Your task to perform on an android device: Go to Reddit.com Image 0: 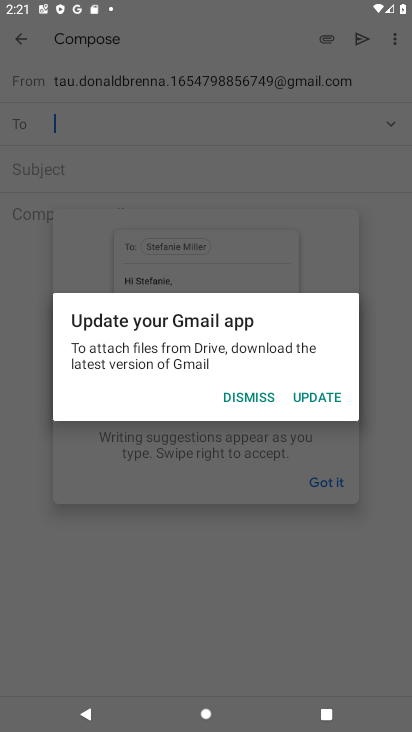
Step 0: click (245, 391)
Your task to perform on an android device: Go to Reddit.com Image 1: 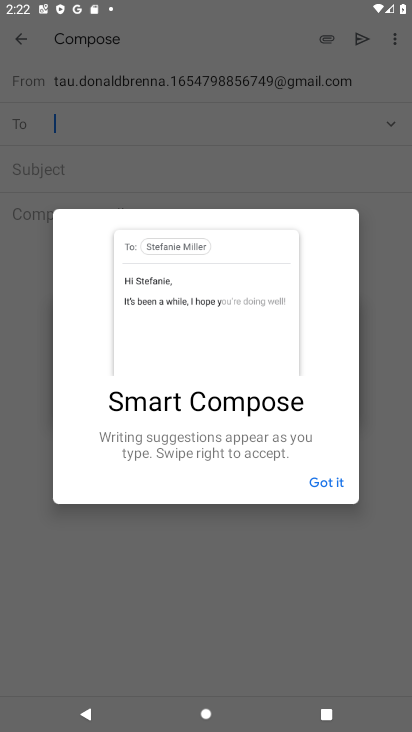
Step 1: click (324, 472)
Your task to perform on an android device: Go to Reddit.com Image 2: 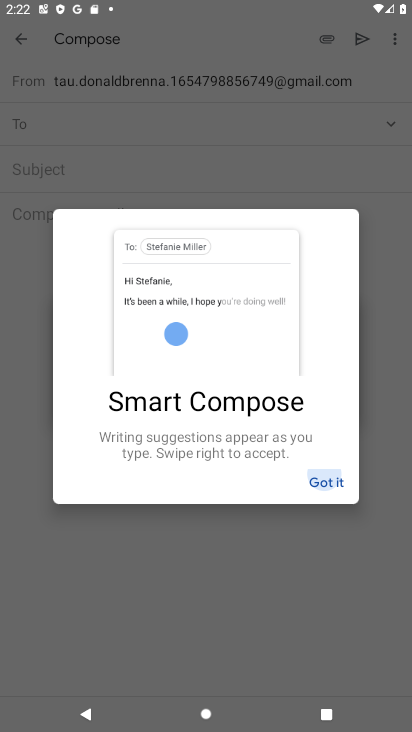
Step 2: click (325, 471)
Your task to perform on an android device: Go to Reddit.com Image 3: 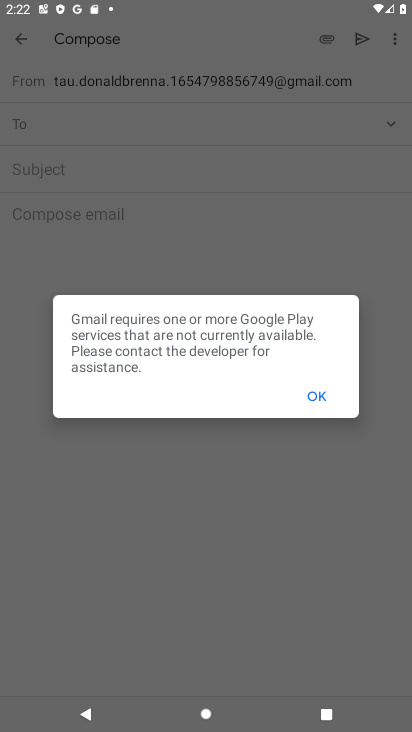
Step 3: click (325, 471)
Your task to perform on an android device: Go to Reddit.com Image 4: 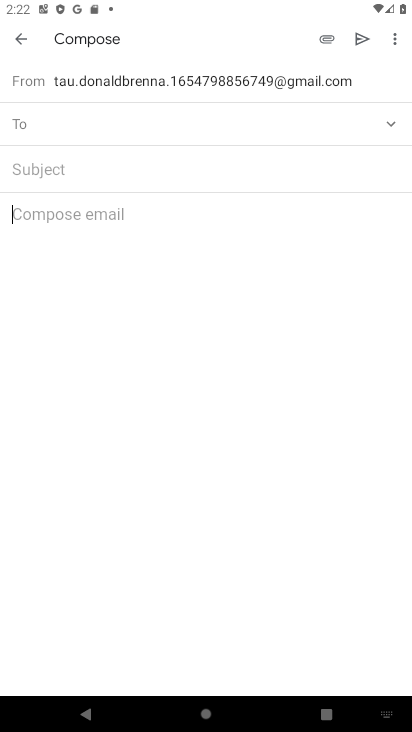
Step 4: click (16, 30)
Your task to perform on an android device: Go to Reddit.com Image 5: 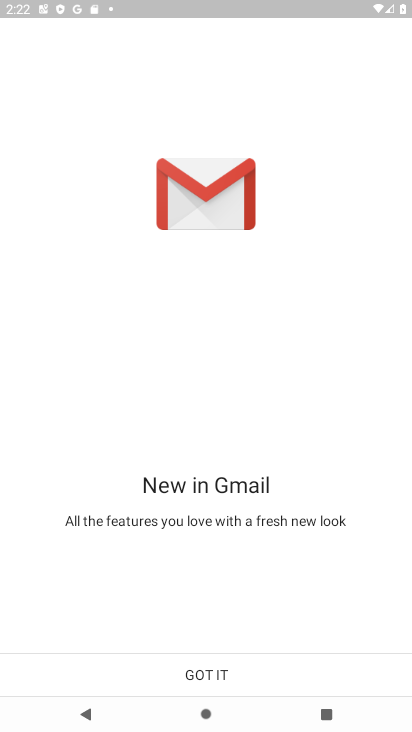
Step 5: click (247, 658)
Your task to perform on an android device: Go to Reddit.com Image 6: 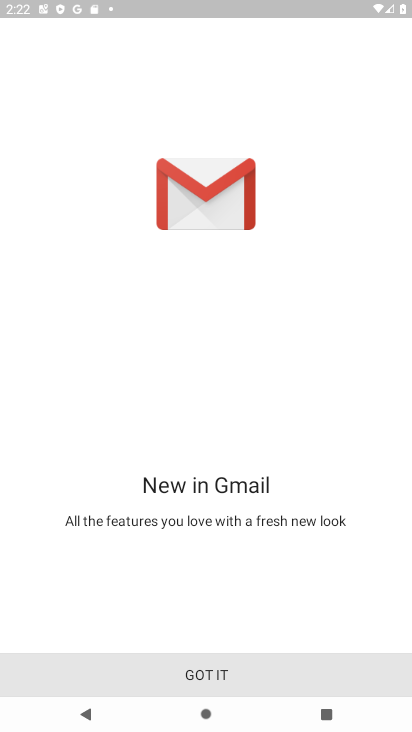
Step 6: click (225, 677)
Your task to perform on an android device: Go to Reddit.com Image 7: 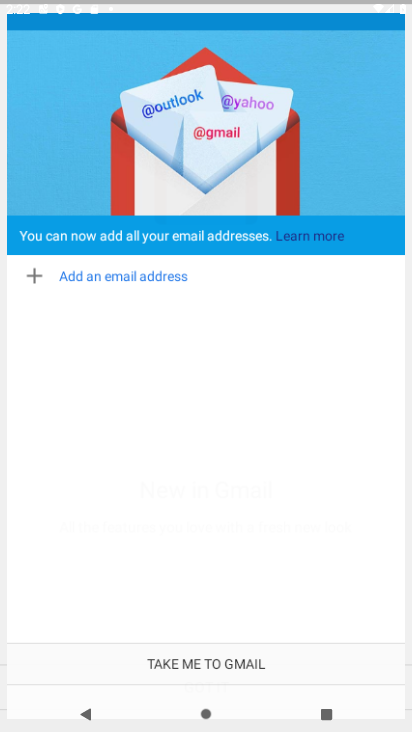
Step 7: click (225, 677)
Your task to perform on an android device: Go to Reddit.com Image 8: 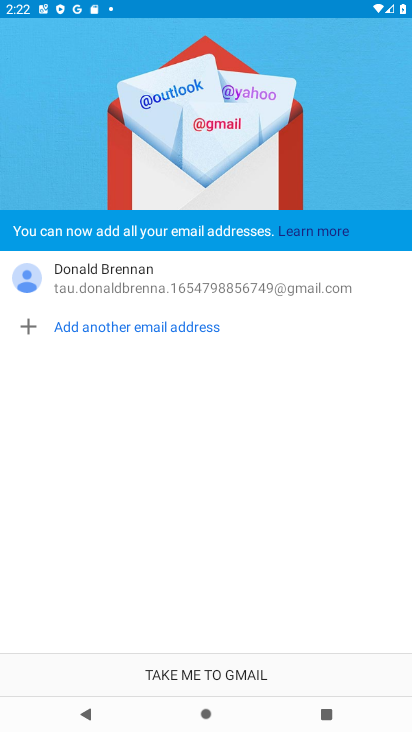
Step 8: click (225, 660)
Your task to perform on an android device: Go to Reddit.com Image 9: 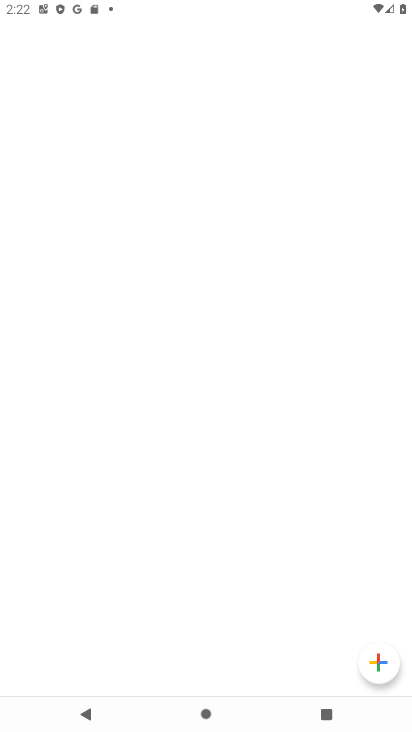
Step 9: click (220, 686)
Your task to perform on an android device: Go to Reddit.com Image 10: 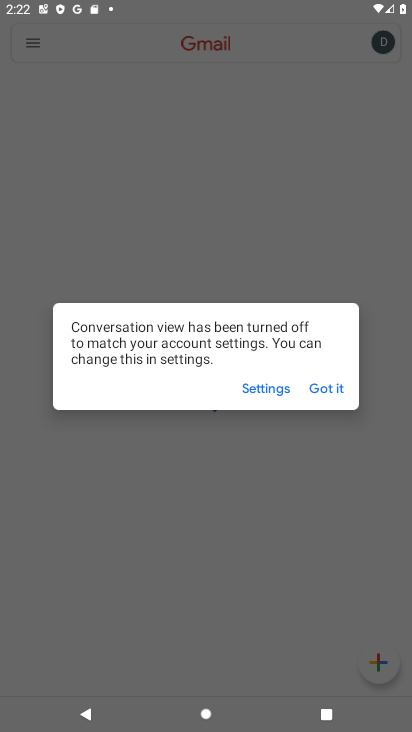
Step 10: click (266, 386)
Your task to perform on an android device: Go to Reddit.com Image 11: 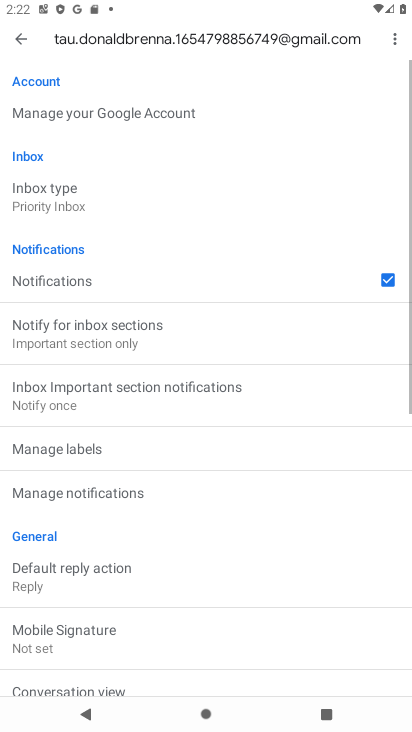
Step 11: press back button
Your task to perform on an android device: Go to Reddit.com Image 12: 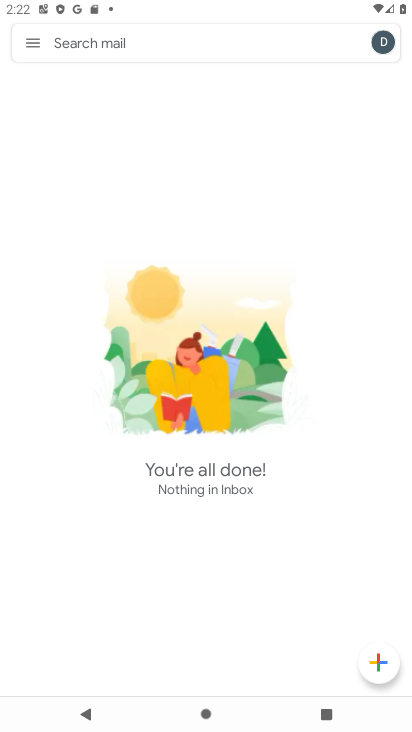
Step 12: press home button
Your task to perform on an android device: Go to Reddit.com Image 13: 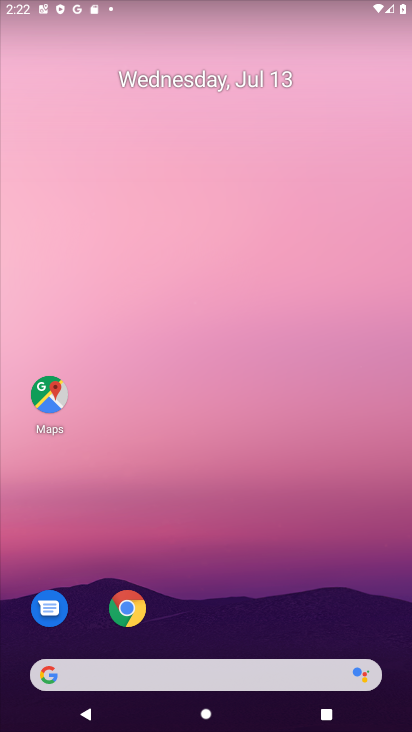
Step 13: drag from (288, 681) to (155, 279)
Your task to perform on an android device: Go to Reddit.com Image 14: 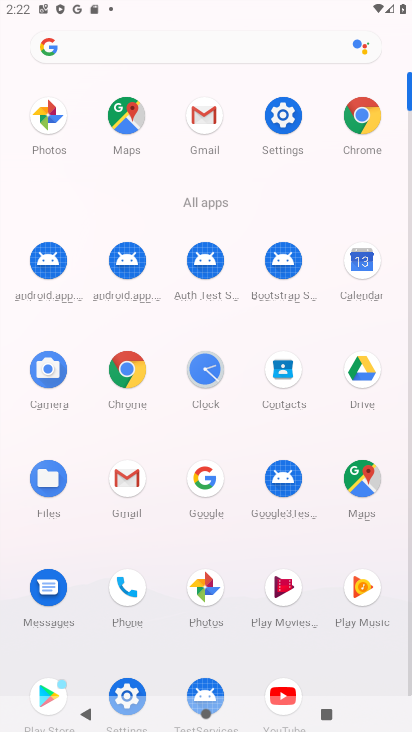
Step 14: click (368, 115)
Your task to perform on an android device: Go to Reddit.com Image 15: 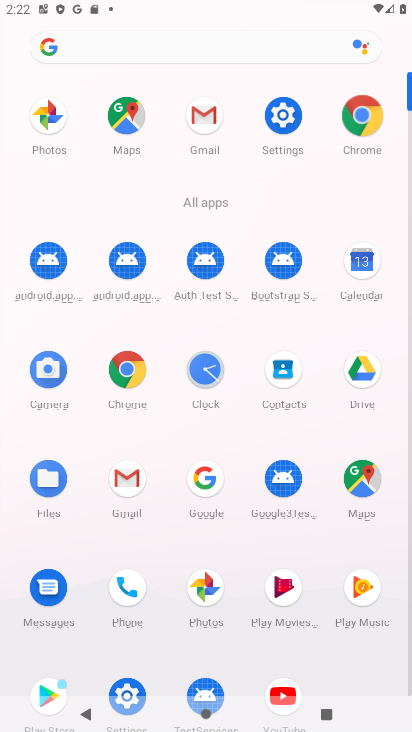
Step 15: click (369, 115)
Your task to perform on an android device: Go to Reddit.com Image 16: 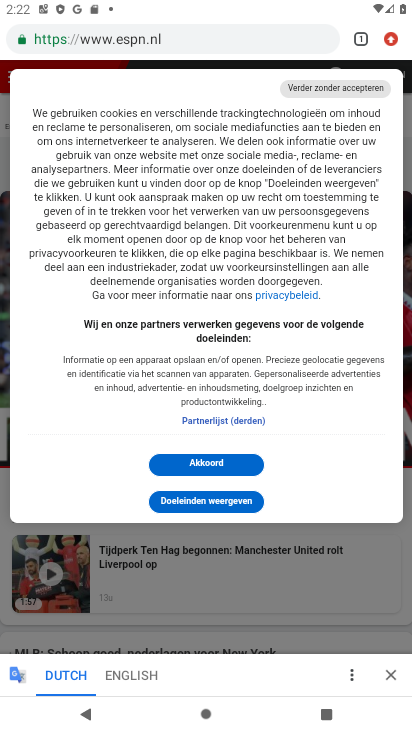
Step 16: drag from (386, 31) to (234, 131)
Your task to perform on an android device: Go to Reddit.com Image 17: 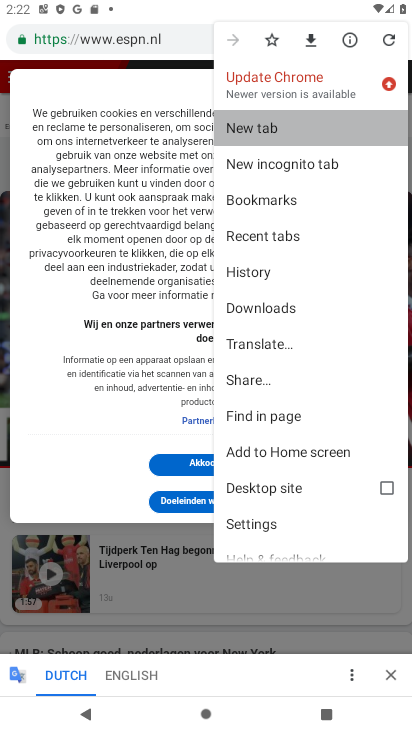
Step 17: click (246, 135)
Your task to perform on an android device: Go to Reddit.com Image 18: 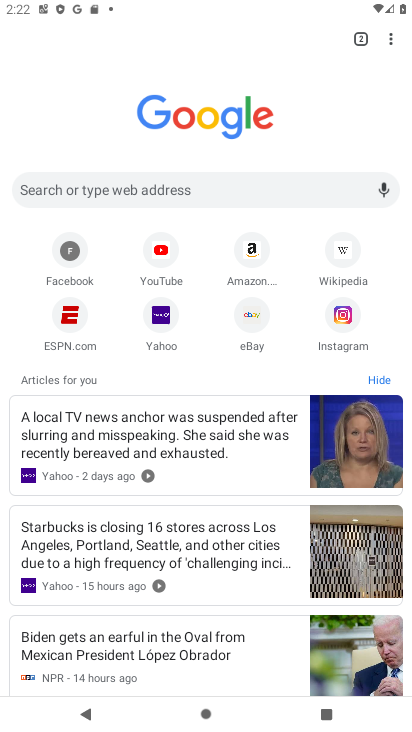
Step 18: click (64, 178)
Your task to perform on an android device: Go to Reddit.com Image 19: 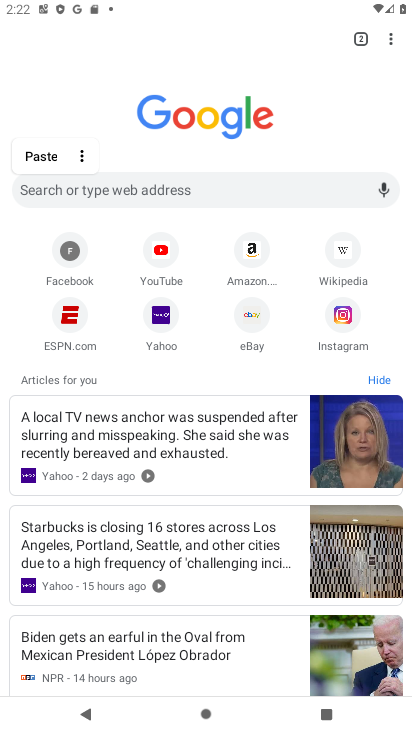
Step 19: type "reddit.com"
Your task to perform on an android device: Go to Reddit.com Image 20: 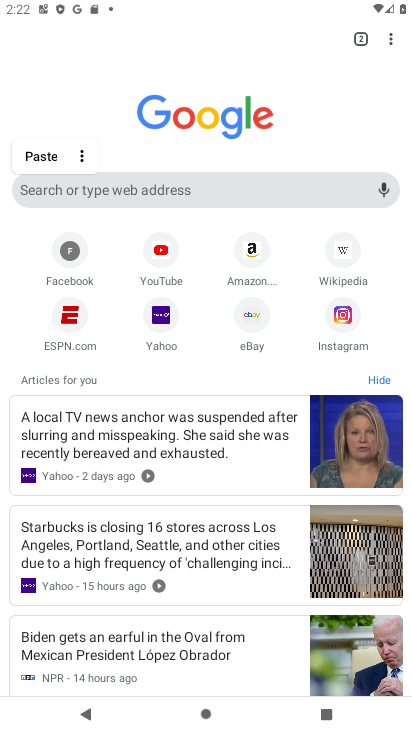
Step 20: click (54, 184)
Your task to perform on an android device: Go to Reddit.com Image 21: 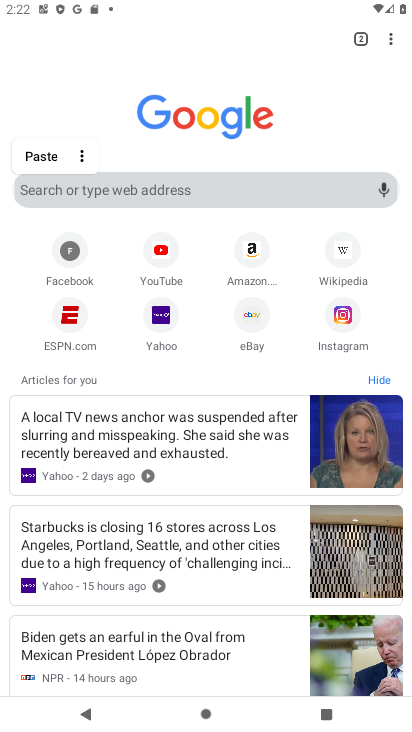
Step 21: click (54, 186)
Your task to perform on an android device: Go to Reddit.com Image 22: 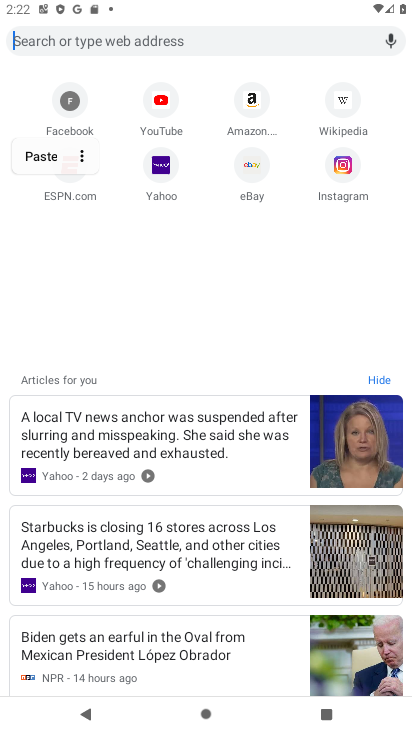
Step 22: click (54, 187)
Your task to perform on an android device: Go to Reddit.com Image 23: 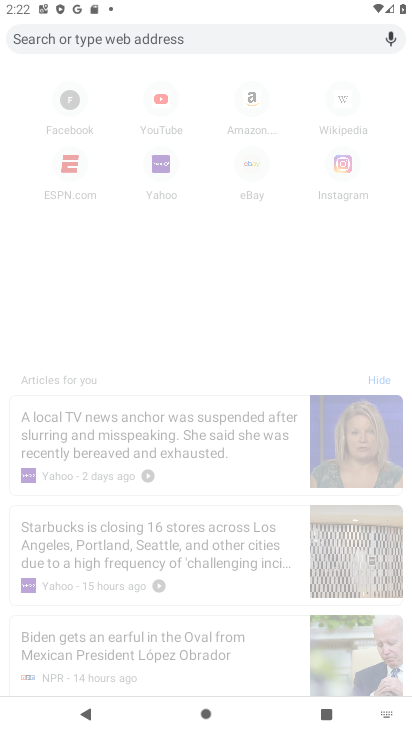
Step 23: click (54, 190)
Your task to perform on an android device: Go to Reddit.com Image 24: 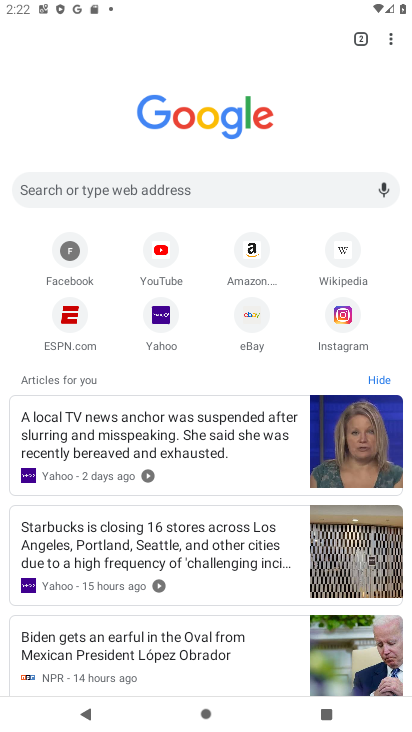
Step 24: click (71, 176)
Your task to perform on an android device: Go to Reddit.com Image 25: 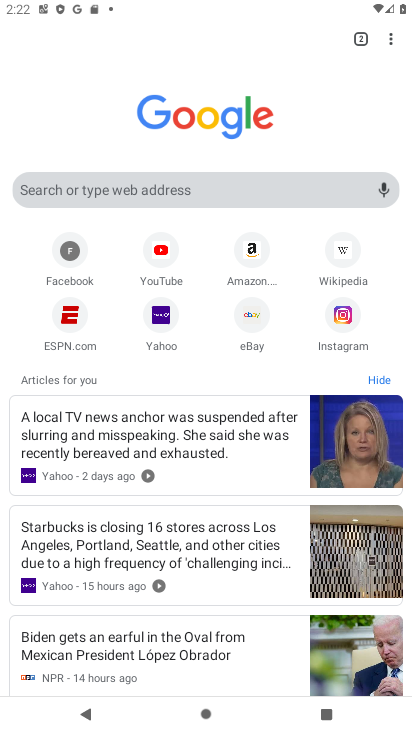
Step 25: click (70, 183)
Your task to perform on an android device: Go to Reddit.com Image 26: 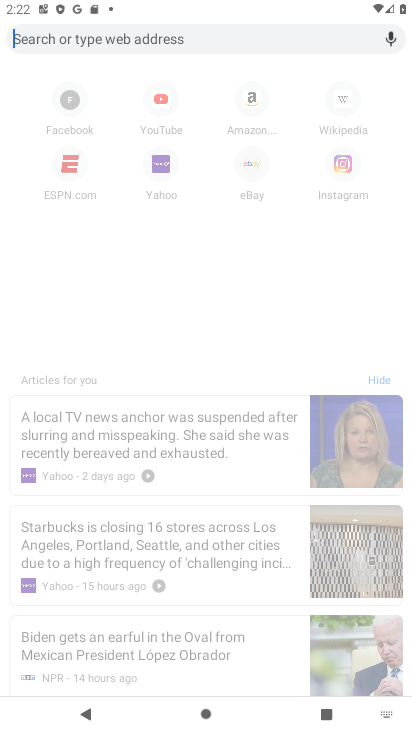
Step 26: click (71, 186)
Your task to perform on an android device: Go to Reddit.com Image 27: 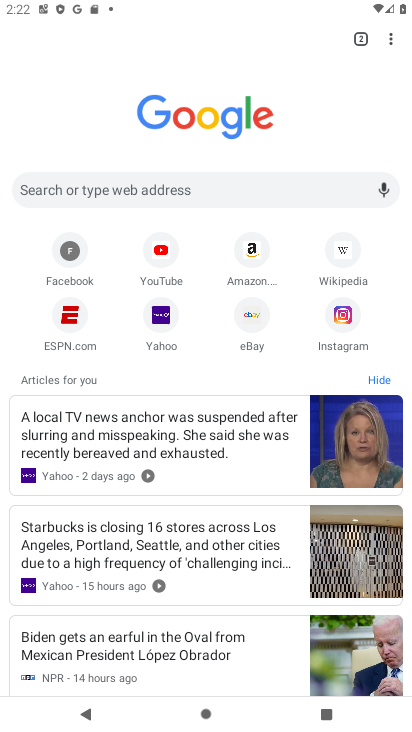
Step 27: click (55, 179)
Your task to perform on an android device: Go to Reddit.com Image 28: 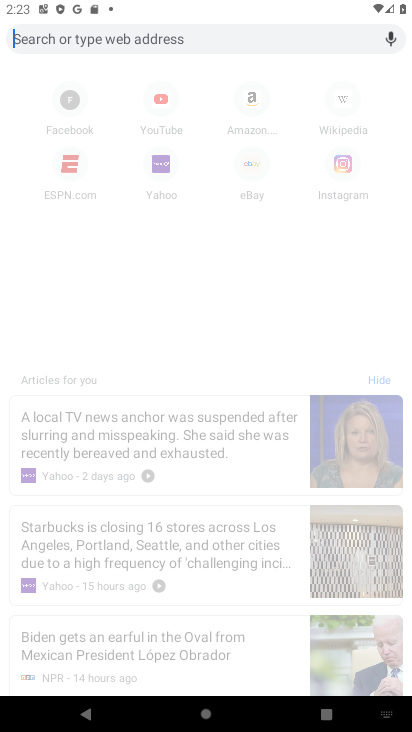
Step 28: type "reddit.com"
Your task to perform on an android device: Go to Reddit.com Image 29: 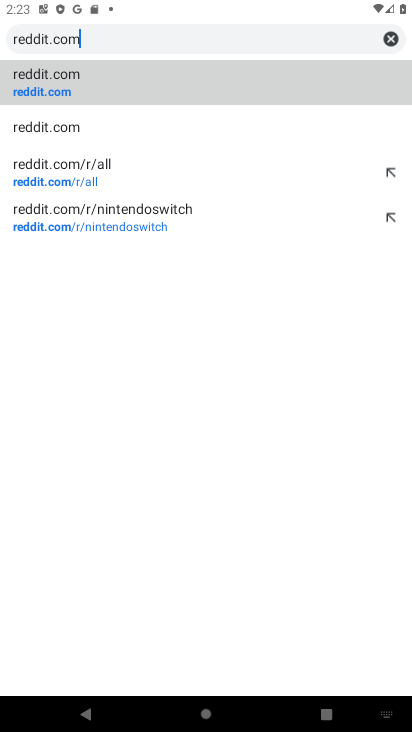
Step 29: click (41, 88)
Your task to perform on an android device: Go to Reddit.com Image 30: 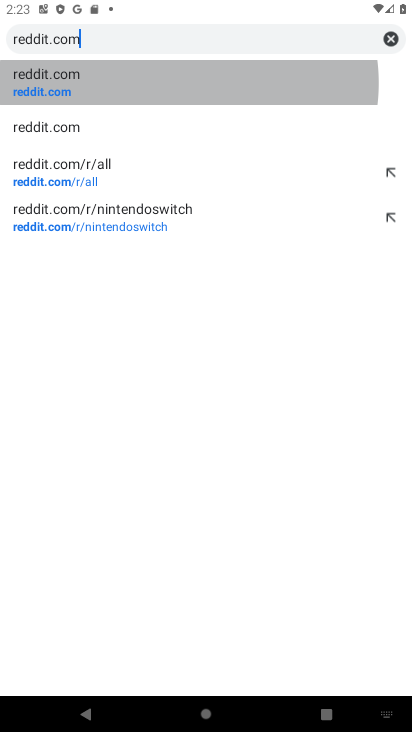
Step 30: click (41, 89)
Your task to perform on an android device: Go to Reddit.com Image 31: 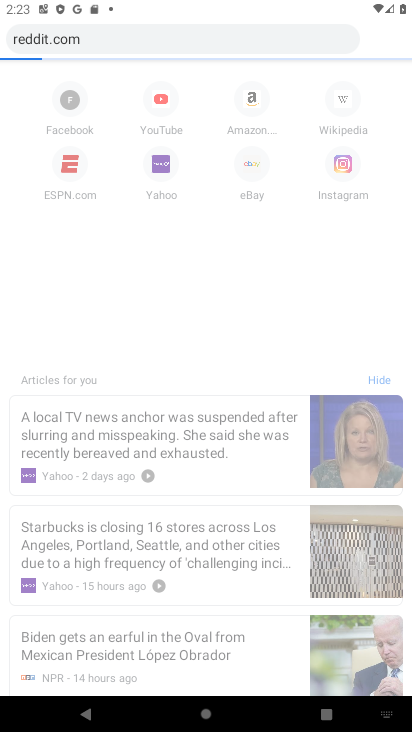
Step 31: click (42, 89)
Your task to perform on an android device: Go to Reddit.com Image 32: 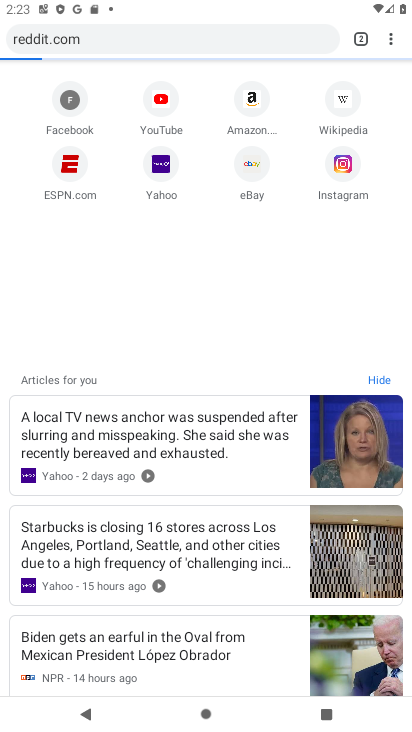
Step 32: click (40, 91)
Your task to perform on an android device: Go to Reddit.com Image 33: 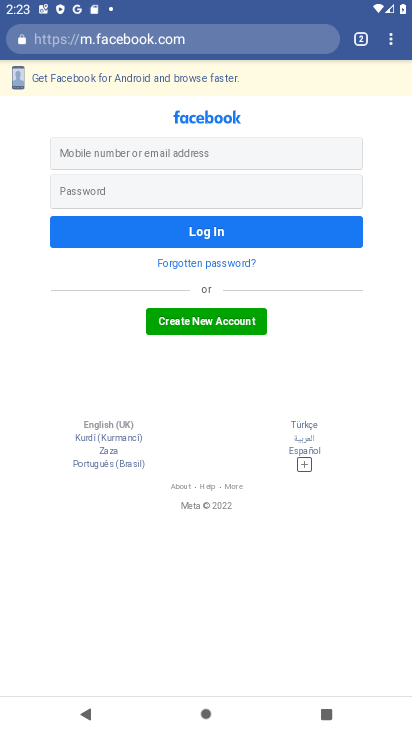
Step 33: task complete